Your task to perform on an android device: Open Chrome and go to settings Image 0: 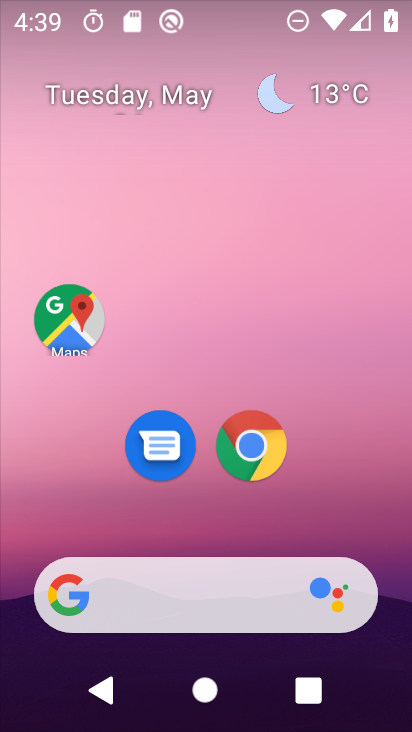
Step 0: click (248, 434)
Your task to perform on an android device: Open Chrome and go to settings Image 1: 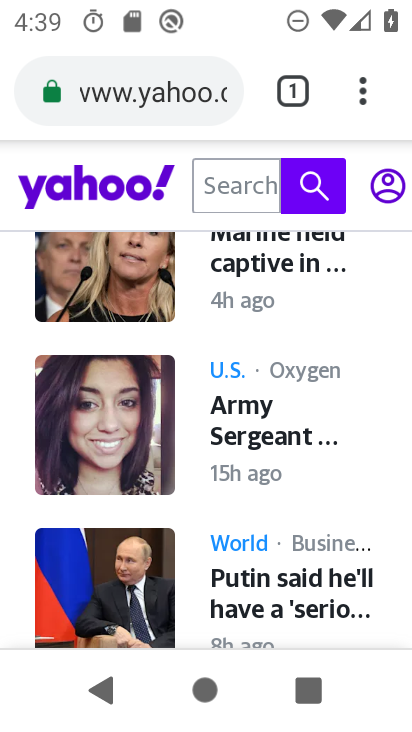
Step 1: click (360, 78)
Your task to perform on an android device: Open Chrome and go to settings Image 2: 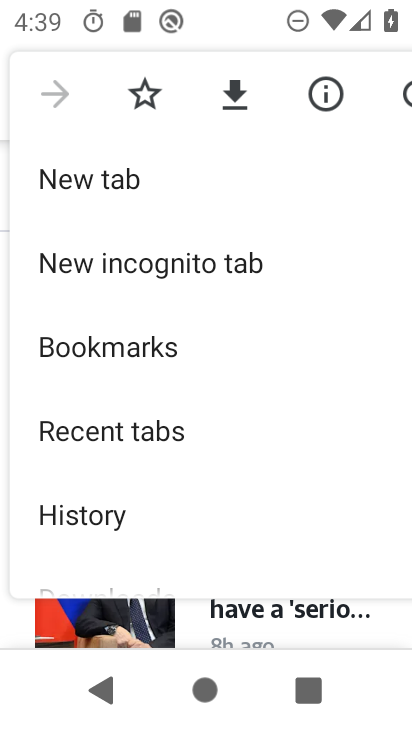
Step 2: drag from (184, 519) to (198, 90)
Your task to perform on an android device: Open Chrome and go to settings Image 3: 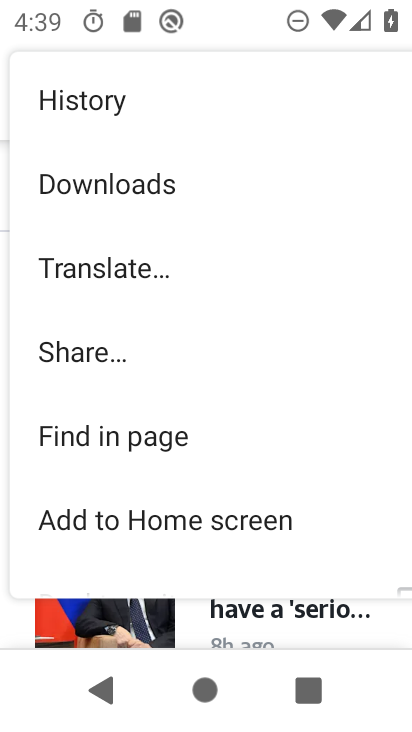
Step 3: drag from (226, 525) to (242, 97)
Your task to perform on an android device: Open Chrome and go to settings Image 4: 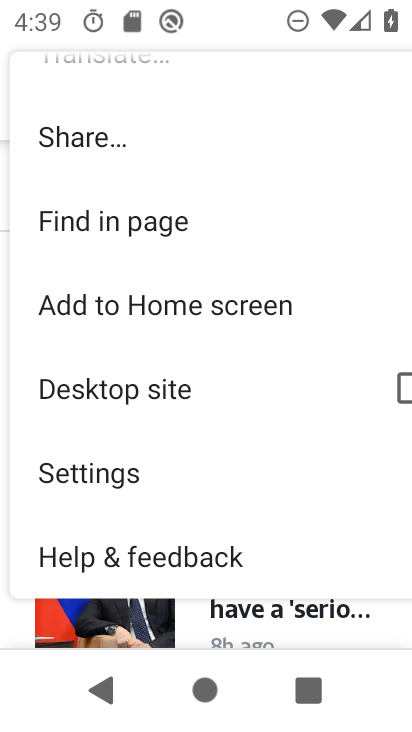
Step 4: click (157, 470)
Your task to perform on an android device: Open Chrome and go to settings Image 5: 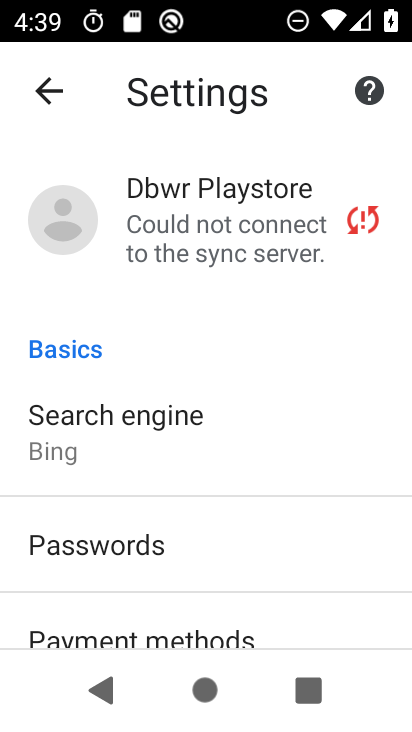
Step 5: task complete